Your task to perform on an android device: change text size in settings app Image 0: 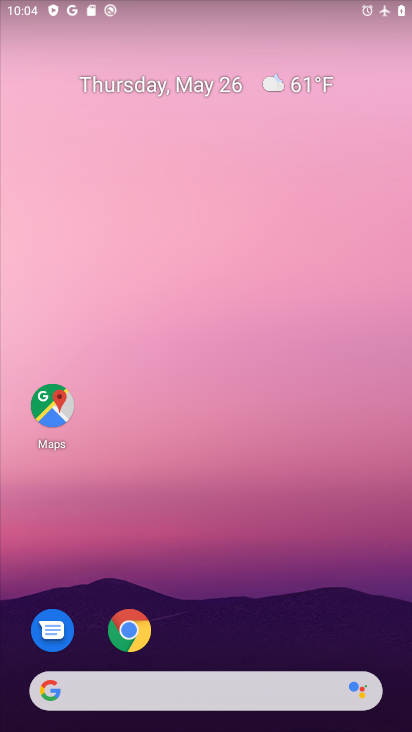
Step 0: drag from (207, 652) to (161, 187)
Your task to perform on an android device: change text size in settings app Image 1: 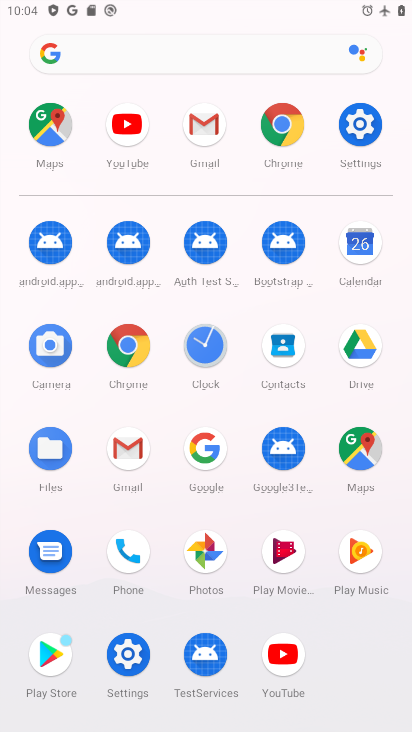
Step 1: click (139, 680)
Your task to perform on an android device: change text size in settings app Image 2: 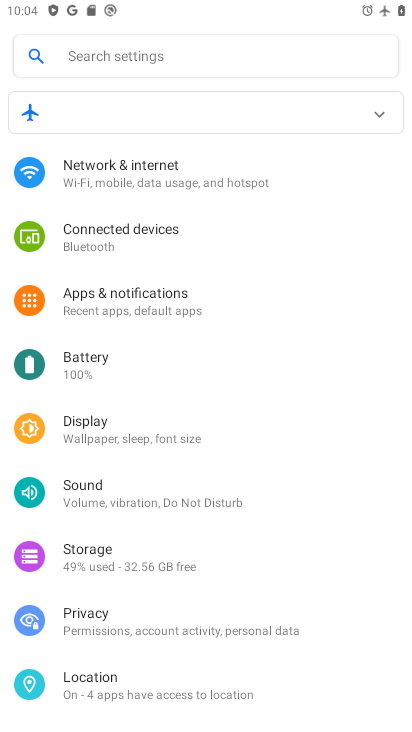
Step 2: click (124, 415)
Your task to perform on an android device: change text size in settings app Image 3: 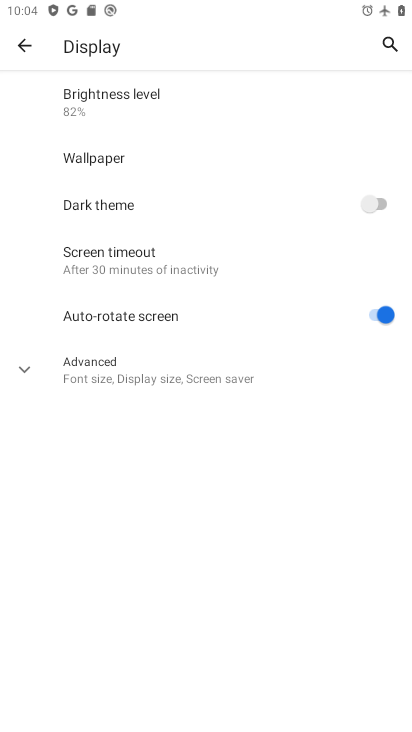
Step 3: click (118, 387)
Your task to perform on an android device: change text size in settings app Image 4: 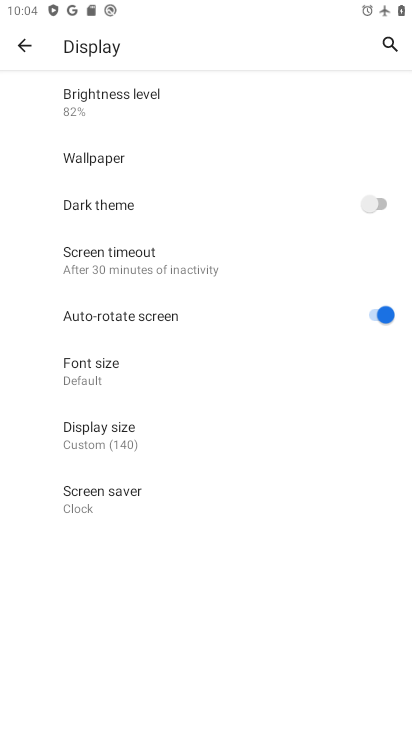
Step 4: click (97, 374)
Your task to perform on an android device: change text size in settings app Image 5: 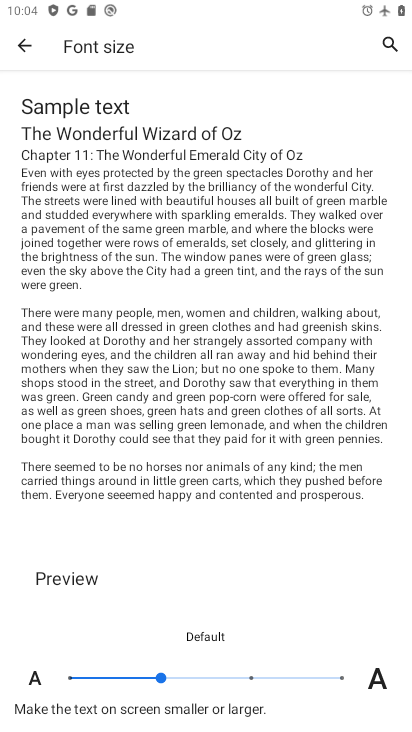
Step 5: click (248, 684)
Your task to perform on an android device: change text size in settings app Image 6: 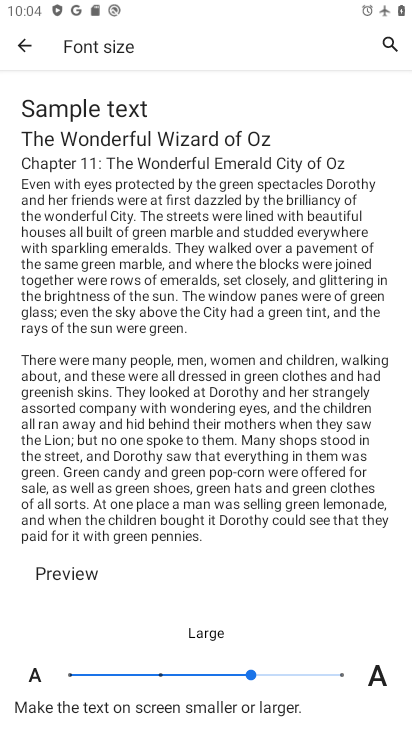
Step 6: task complete